Your task to perform on an android device: Add panasonic triple a to the cart on ebay, then select checkout. Image 0: 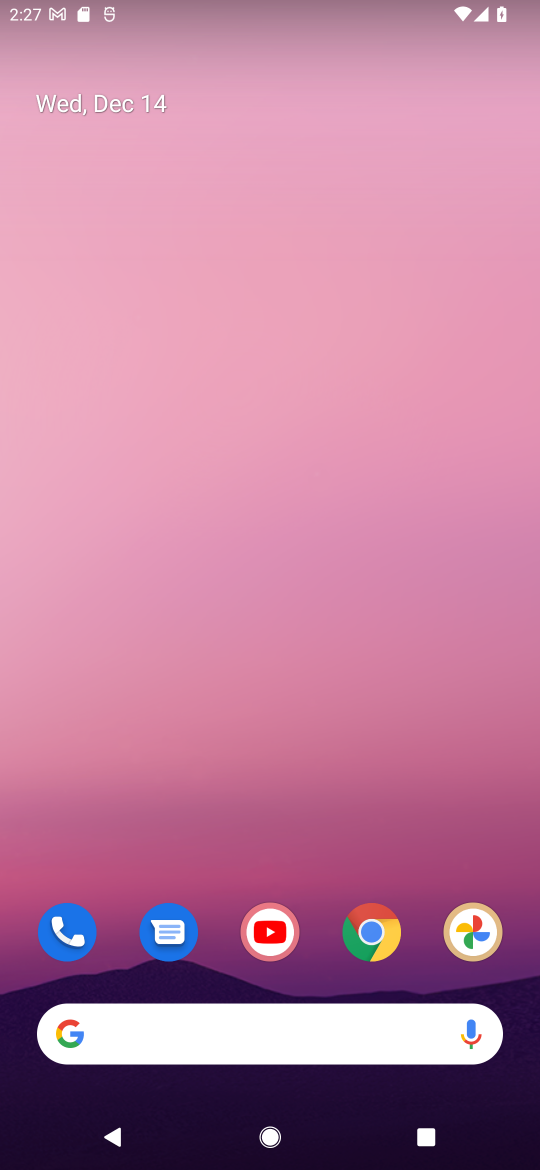
Step 0: click (284, 1044)
Your task to perform on an android device: Add panasonic triple a to the cart on ebay, then select checkout. Image 1: 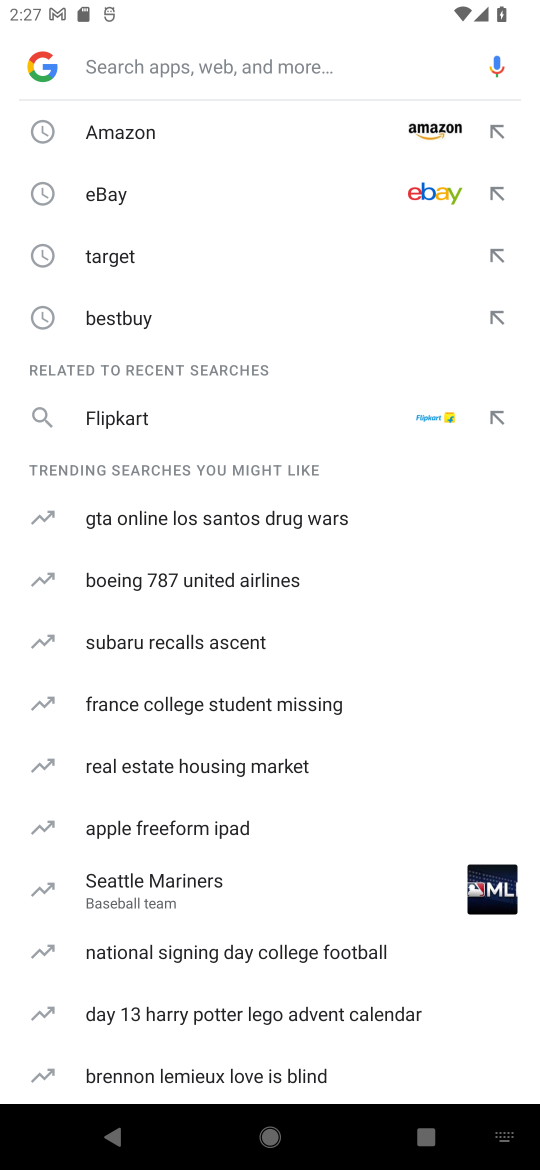
Step 1: click (145, 193)
Your task to perform on an android device: Add panasonic triple a to the cart on ebay, then select checkout. Image 2: 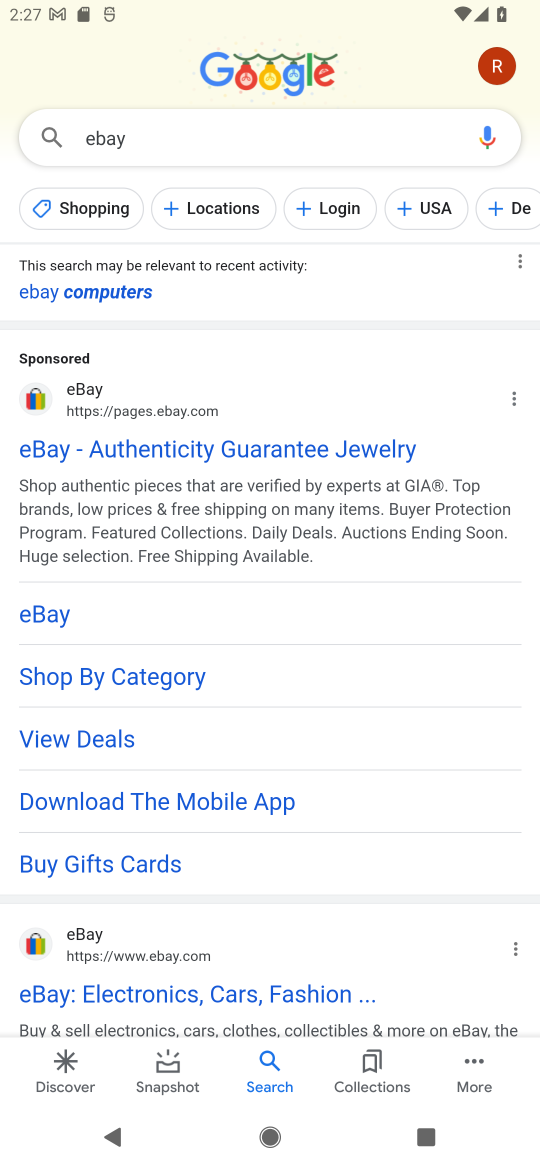
Step 2: click (107, 446)
Your task to perform on an android device: Add panasonic triple a to the cart on ebay, then select checkout. Image 3: 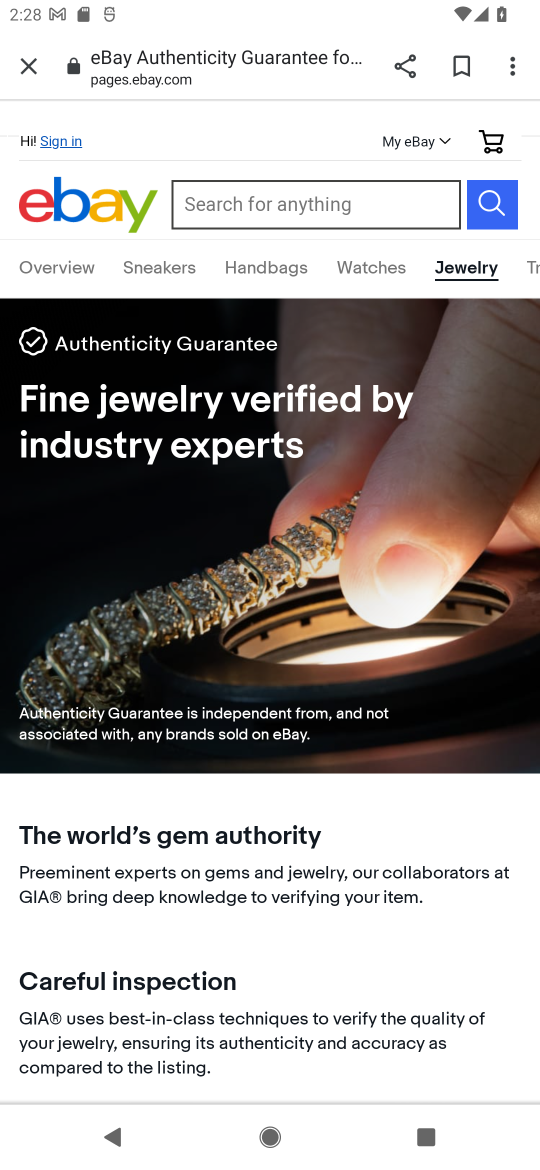
Step 3: click (271, 193)
Your task to perform on an android device: Add panasonic triple a to the cart on ebay, then select checkout. Image 4: 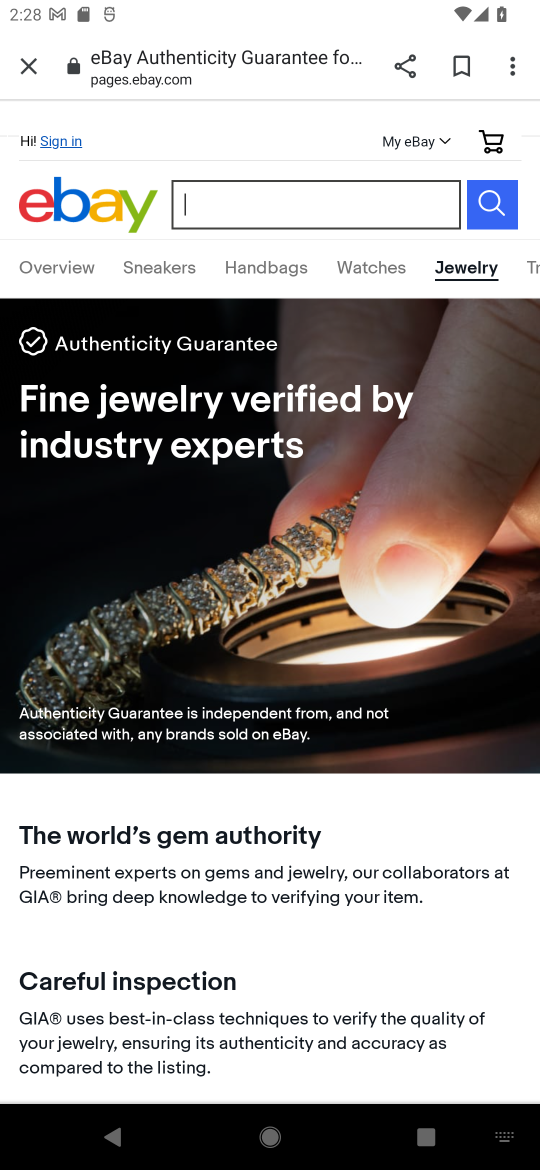
Step 4: type " triple a"
Your task to perform on an android device: Add panasonic triple a to the cart on ebay, then select checkout. Image 5: 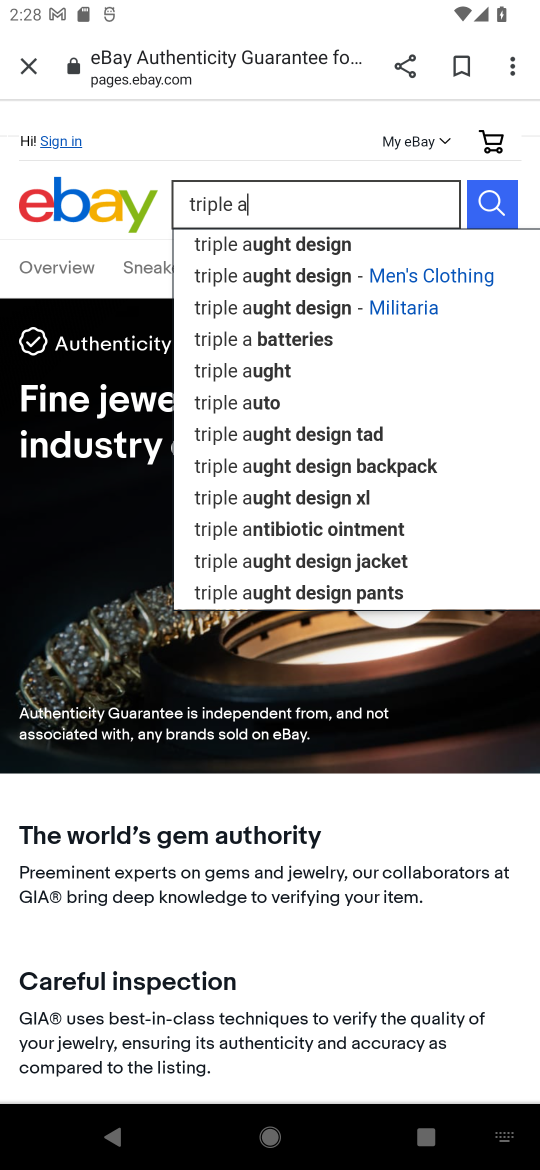
Step 5: click (490, 196)
Your task to perform on an android device: Add panasonic triple a to the cart on ebay, then select checkout. Image 6: 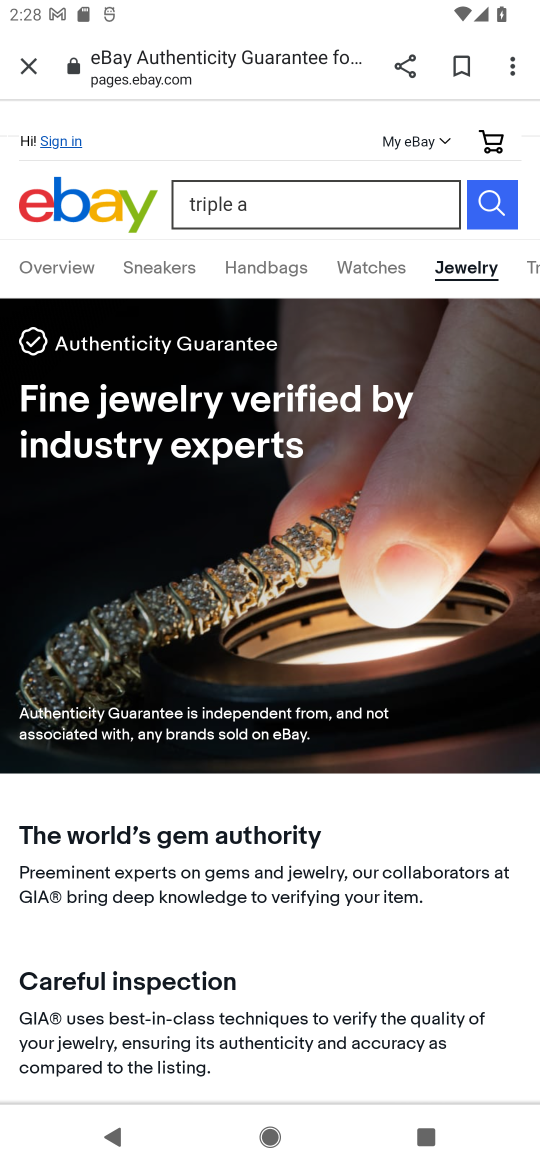
Step 6: click (486, 204)
Your task to perform on an android device: Add panasonic triple a to the cart on ebay, then select checkout. Image 7: 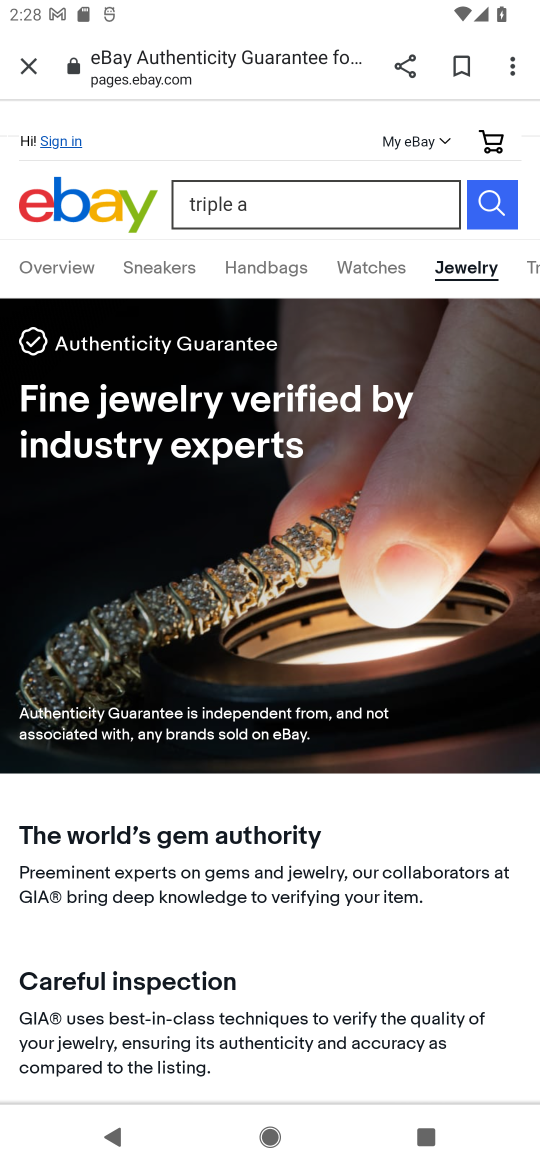
Step 7: click (486, 204)
Your task to perform on an android device: Add panasonic triple a to the cart on ebay, then select checkout. Image 8: 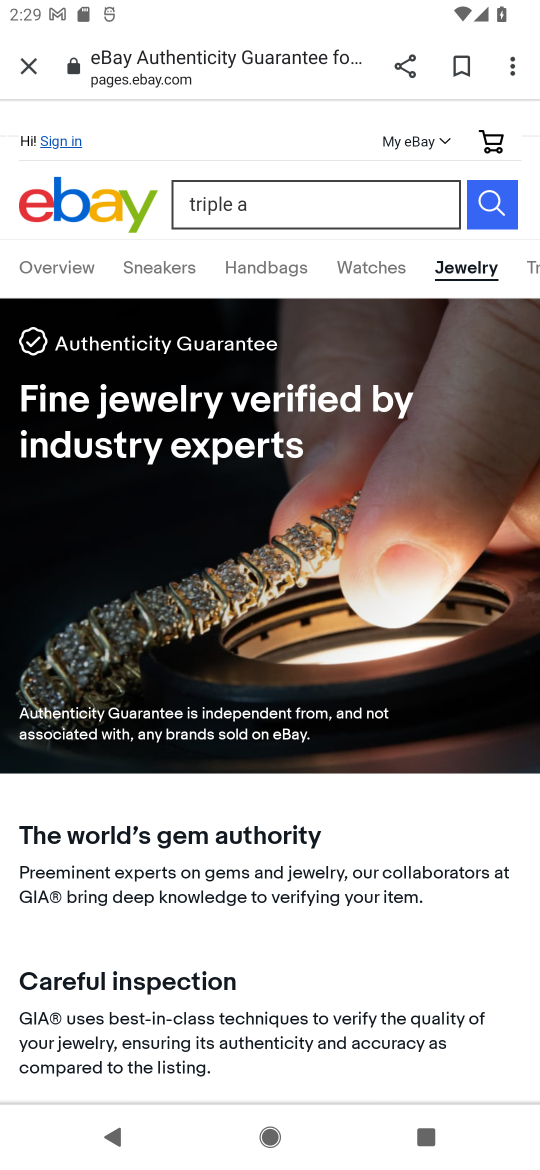
Step 8: click (486, 204)
Your task to perform on an android device: Add panasonic triple a to the cart on ebay, then select checkout. Image 9: 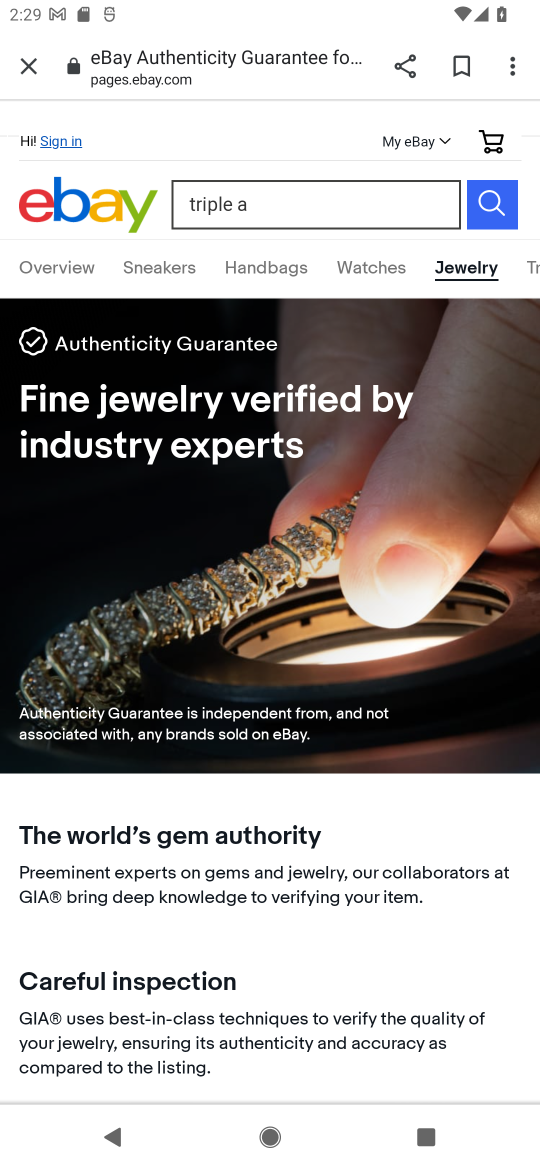
Step 9: click (486, 204)
Your task to perform on an android device: Add panasonic triple a to the cart on ebay, then select checkout. Image 10: 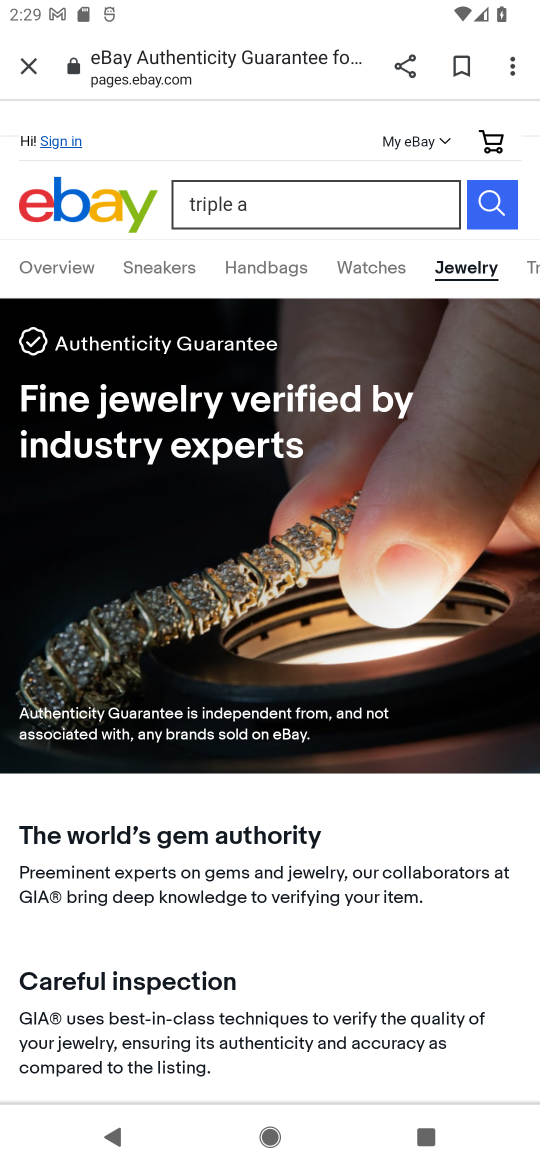
Step 10: task complete